Your task to perform on an android device: open device folders in google photos Image 0: 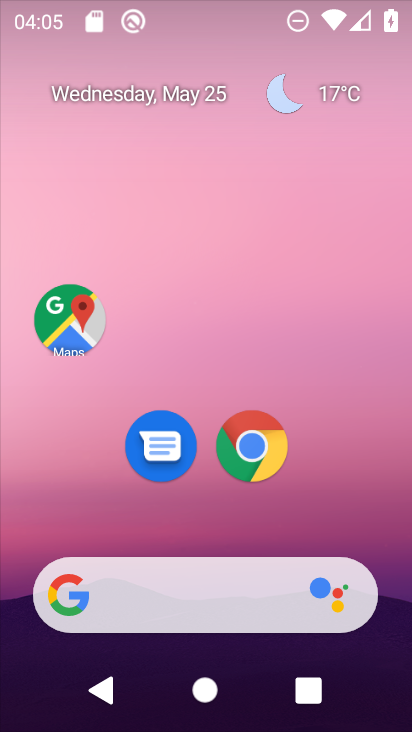
Step 0: drag from (173, 573) to (174, 79)
Your task to perform on an android device: open device folders in google photos Image 1: 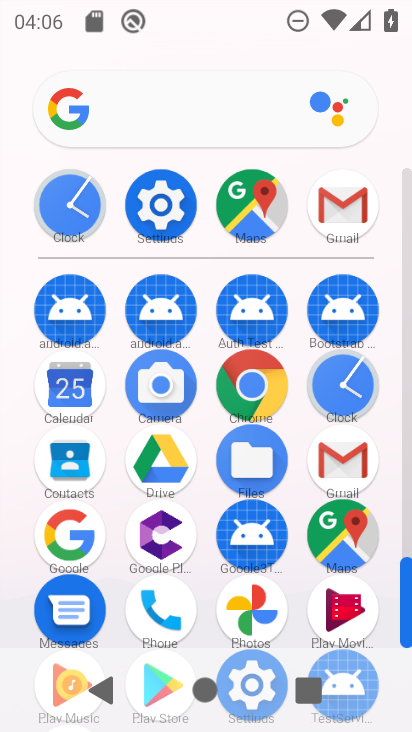
Step 1: click (236, 621)
Your task to perform on an android device: open device folders in google photos Image 2: 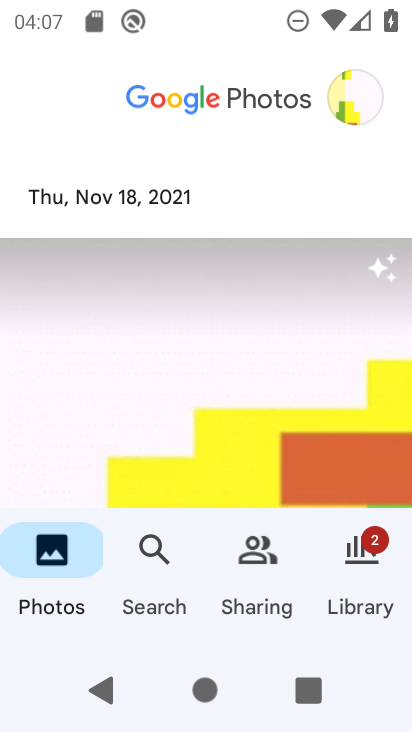
Step 2: click (341, 578)
Your task to perform on an android device: open device folders in google photos Image 3: 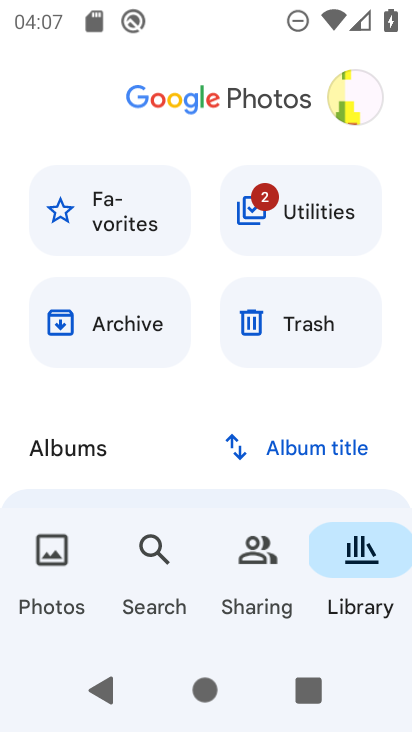
Step 3: task complete